Your task to perform on an android device: turn smart compose on in the gmail app Image 0: 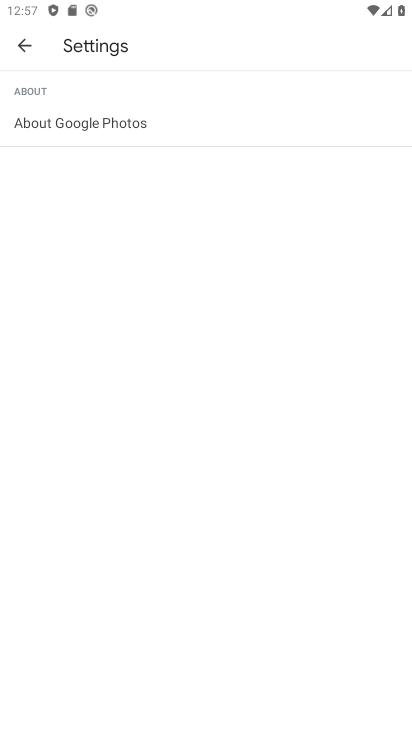
Step 0: press home button
Your task to perform on an android device: turn smart compose on in the gmail app Image 1: 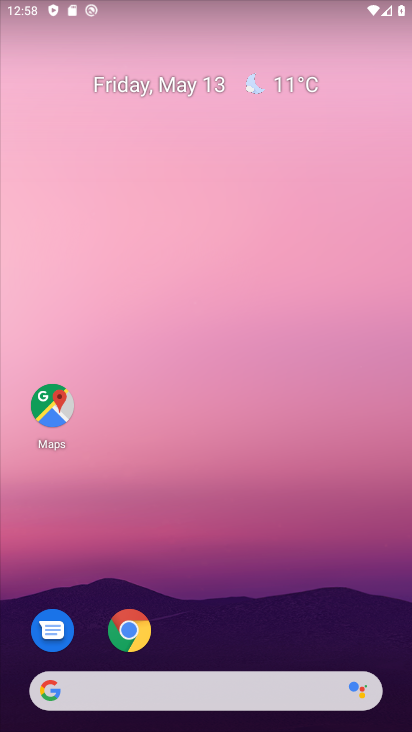
Step 1: drag from (236, 670) to (235, 270)
Your task to perform on an android device: turn smart compose on in the gmail app Image 2: 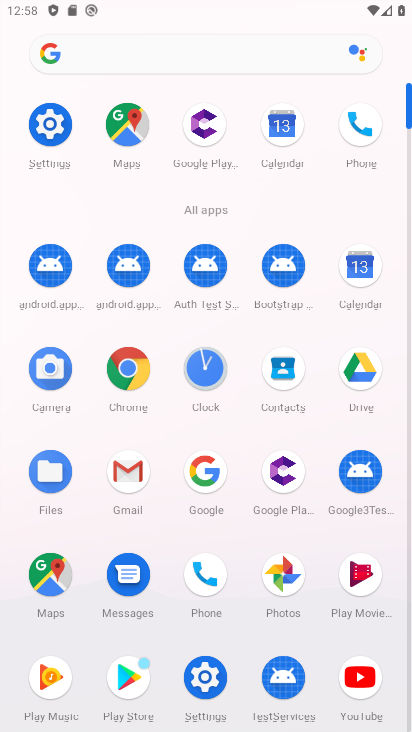
Step 2: click (128, 469)
Your task to perform on an android device: turn smart compose on in the gmail app Image 3: 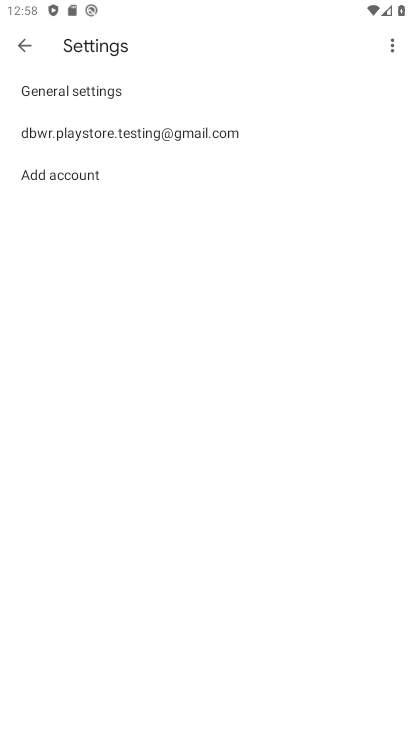
Step 3: click (169, 131)
Your task to perform on an android device: turn smart compose on in the gmail app Image 4: 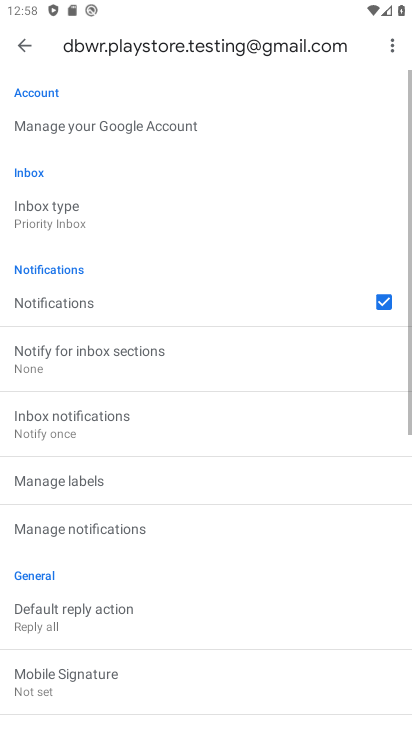
Step 4: task complete